Your task to perform on an android device: turn on javascript in the chrome app Image 0: 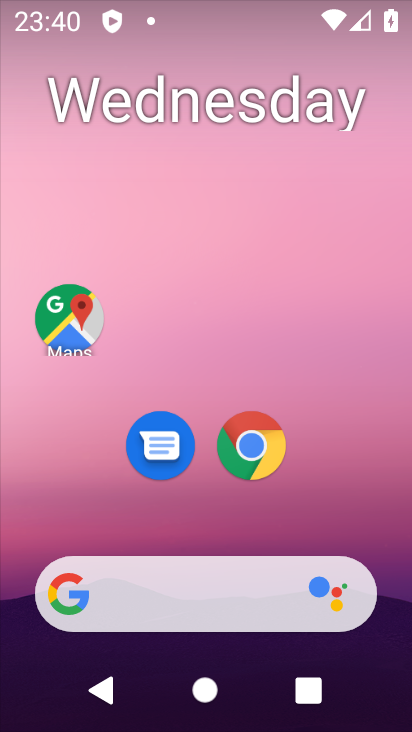
Step 0: click (240, 451)
Your task to perform on an android device: turn on javascript in the chrome app Image 1: 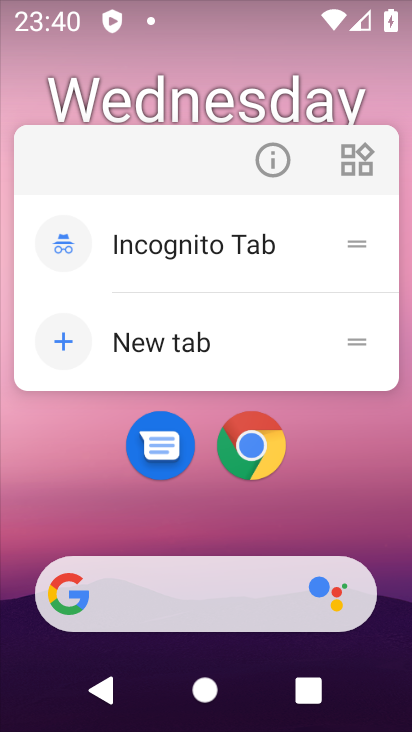
Step 1: click (260, 433)
Your task to perform on an android device: turn on javascript in the chrome app Image 2: 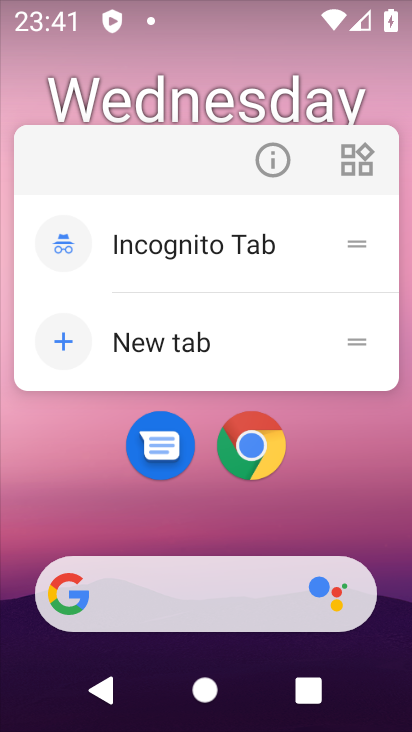
Step 2: click (257, 433)
Your task to perform on an android device: turn on javascript in the chrome app Image 3: 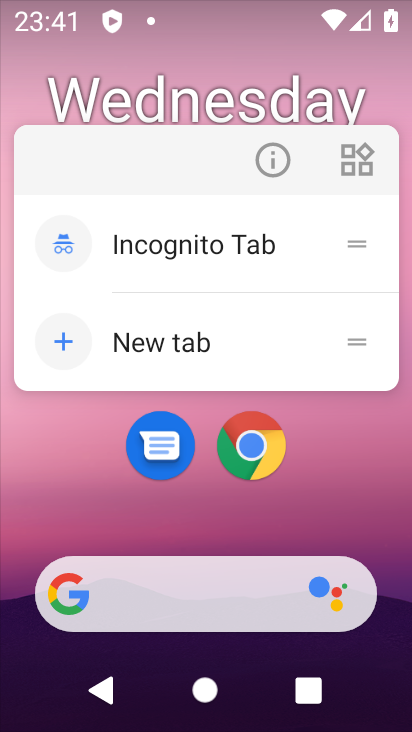
Step 3: click (264, 441)
Your task to perform on an android device: turn on javascript in the chrome app Image 4: 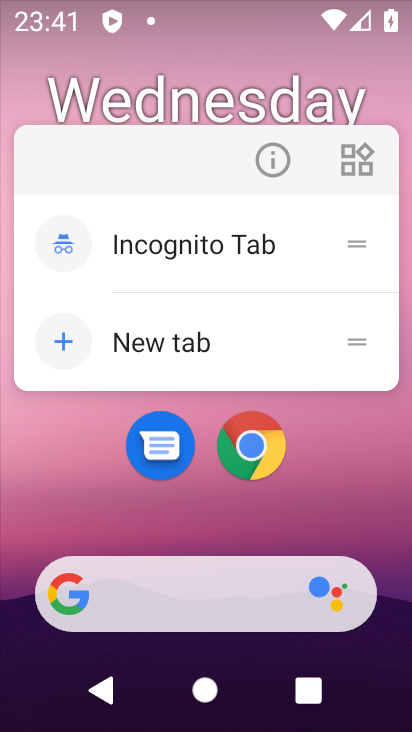
Step 4: click (260, 446)
Your task to perform on an android device: turn on javascript in the chrome app Image 5: 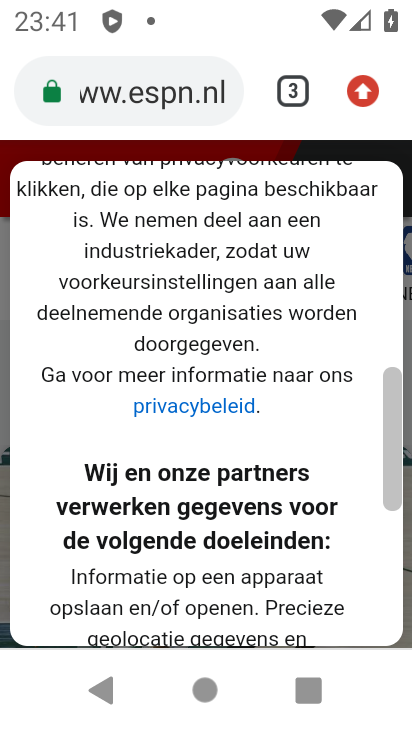
Step 5: drag from (364, 89) to (172, 468)
Your task to perform on an android device: turn on javascript in the chrome app Image 6: 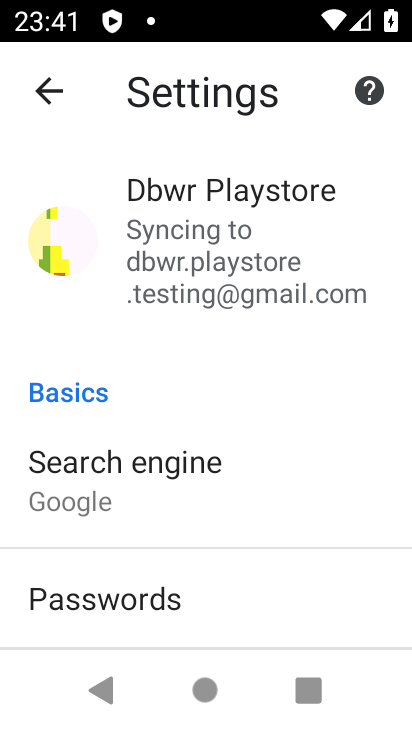
Step 6: drag from (152, 584) to (257, 94)
Your task to perform on an android device: turn on javascript in the chrome app Image 7: 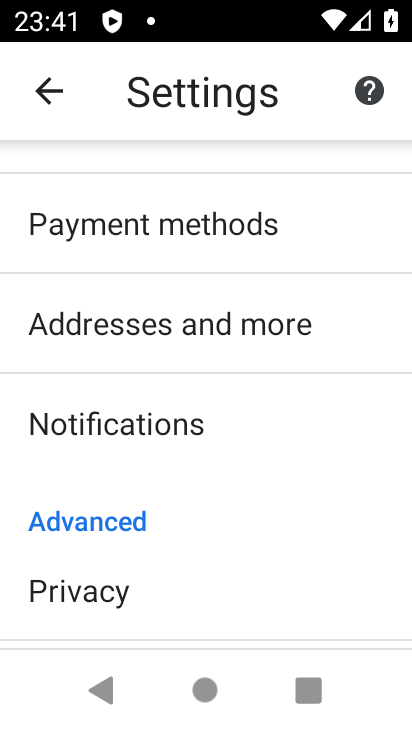
Step 7: drag from (135, 547) to (247, 130)
Your task to perform on an android device: turn on javascript in the chrome app Image 8: 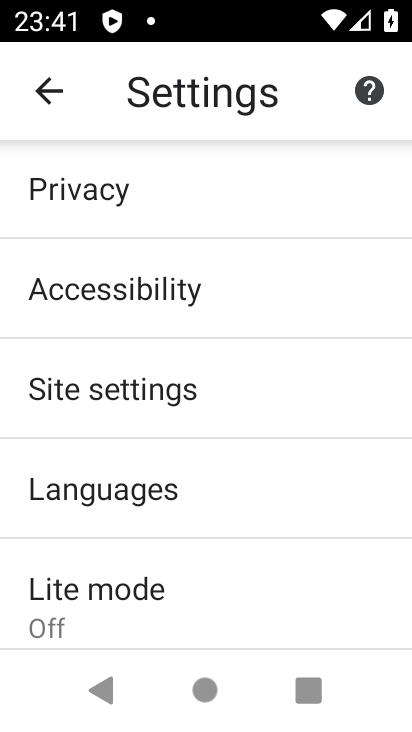
Step 8: click (168, 386)
Your task to perform on an android device: turn on javascript in the chrome app Image 9: 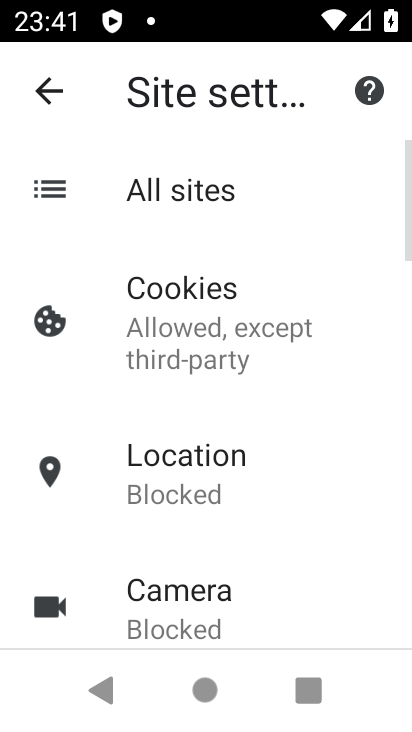
Step 9: drag from (189, 633) to (291, 118)
Your task to perform on an android device: turn on javascript in the chrome app Image 10: 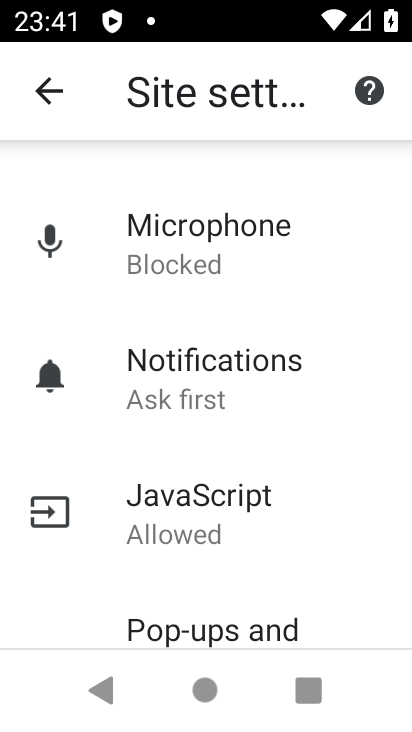
Step 10: click (213, 489)
Your task to perform on an android device: turn on javascript in the chrome app Image 11: 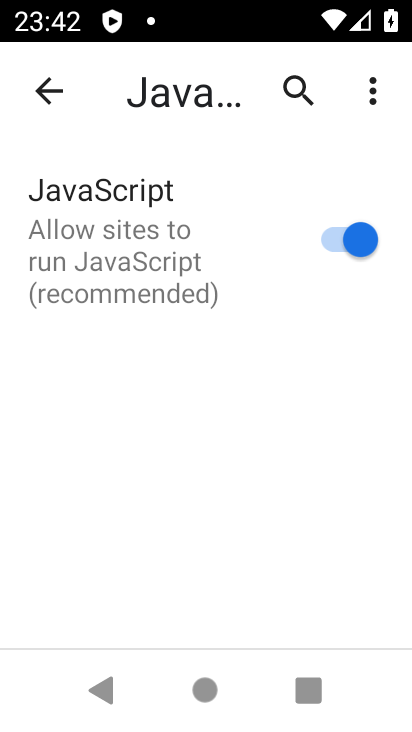
Step 11: task complete